Your task to perform on an android device: Open the phone app and click the voicemail tab. Image 0: 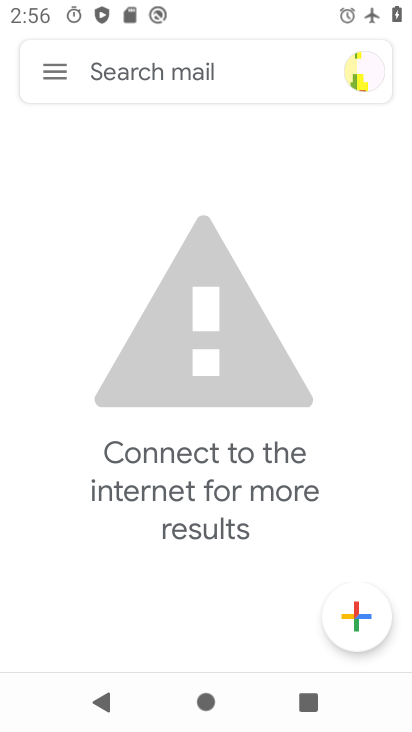
Step 0: press home button
Your task to perform on an android device: Open the phone app and click the voicemail tab. Image 1: 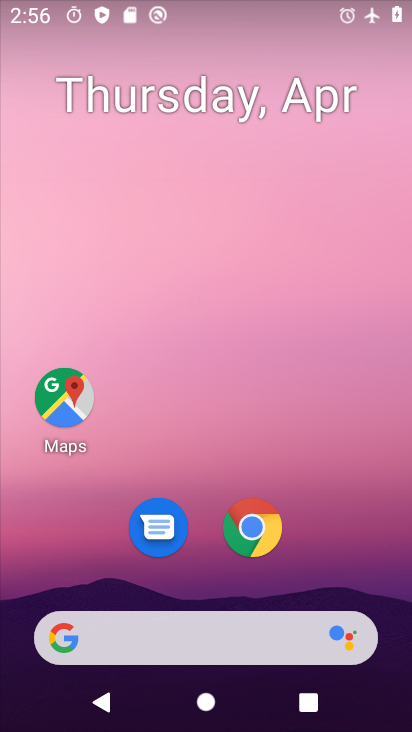
Step 1: drag from (354, 520) to (389, 38)
Your task to perform on an android device: Open the phone app and click the voicemail tab. Image 2: 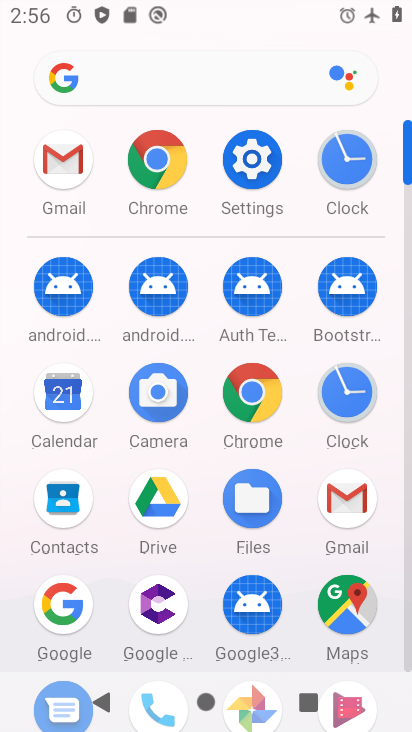
Step 2: drag from (198, 543) to (253, 274)
Your task to perform on an android device: Open the phone app and click the voicemail tab. Image 3: 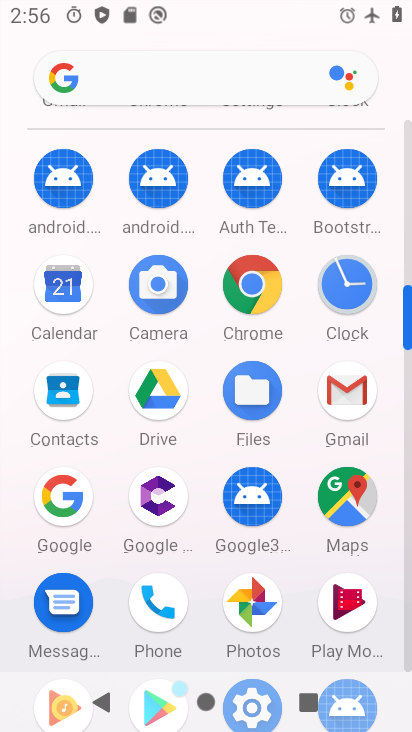
Step 3: click (167, 584)
Your task to perform on an android device: Open the phone app and click the voicemail tab. Image 4: 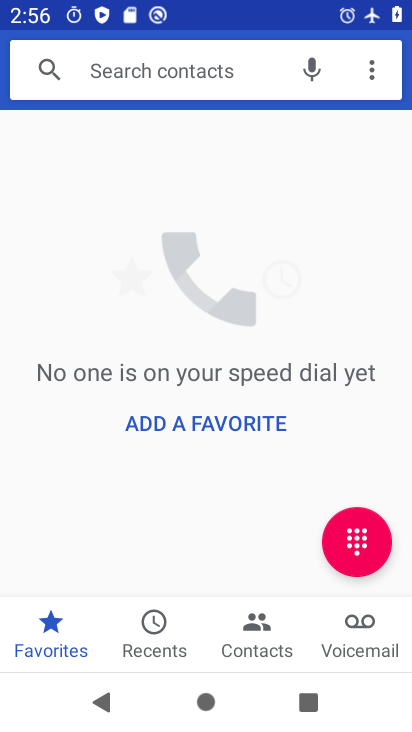
Step 4: click (345, 629)
Your task to perform on an android device: Open the phone app and click the voicemail tab. Image 5: 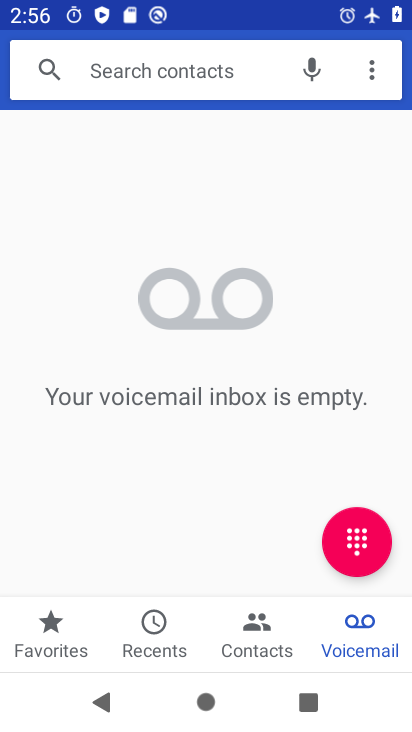
Step 5: task complete